Your task to perform on an android device: turn on notifications settings in the gmail app Image 0: 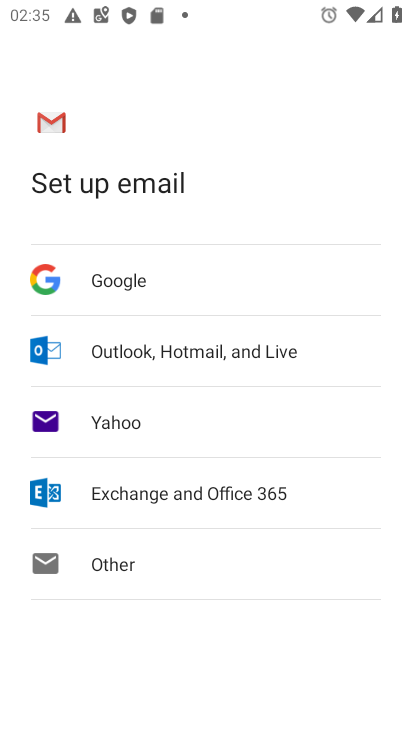
Step 0: press home button
Your task to perform on an android device: turn on notifications settings in the gmail app Image 1: 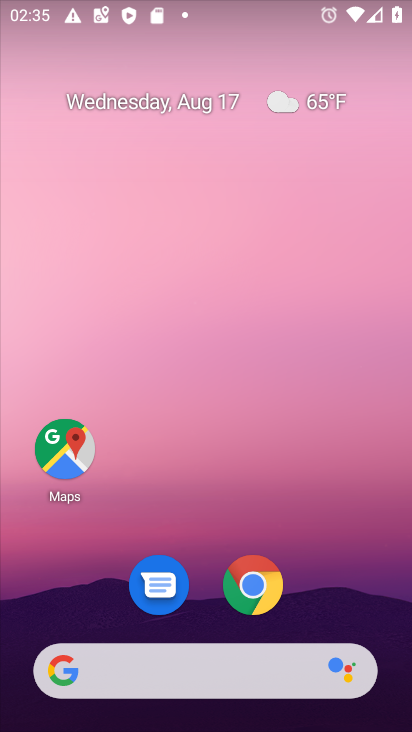
Step 1: drag from (222, 489) to (290, 1)
Your task to perform on an android device: turn on notifications settings in the gmail app Image 2: 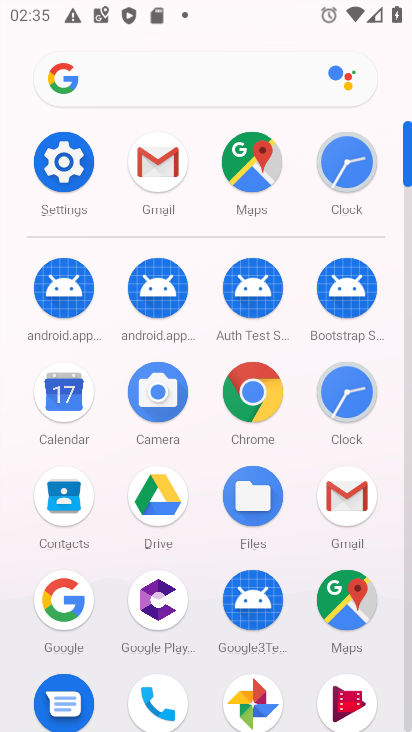
Step 2: click (150, 169)
Your task to perform on an android device: turn on notifications settings in the gmail app Image 3: 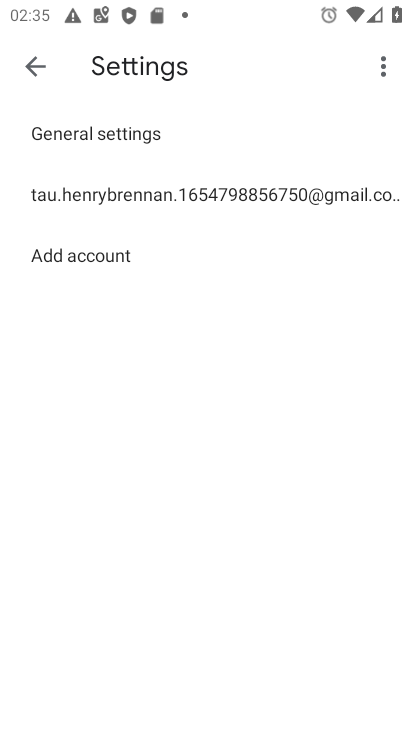
Step 3: click (166, 186)
Your task to perform on an android device: turn on notifications settings in the gmail app Image 4: 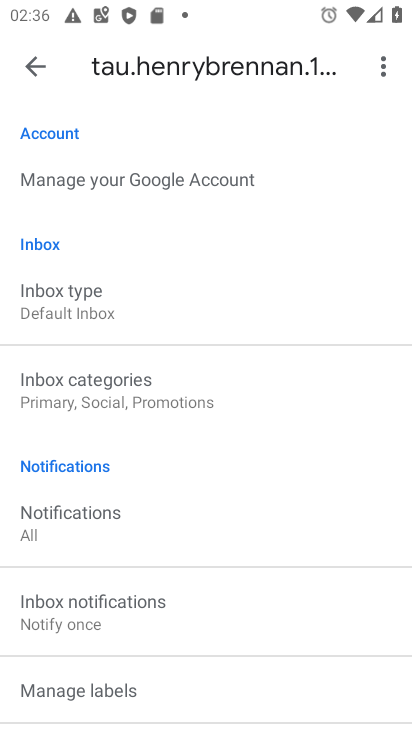
Step 4: drag from (146, 521) to (195, 57)
Your task to perform on an android device: turn on notifications settings in the gmail app Image 5: 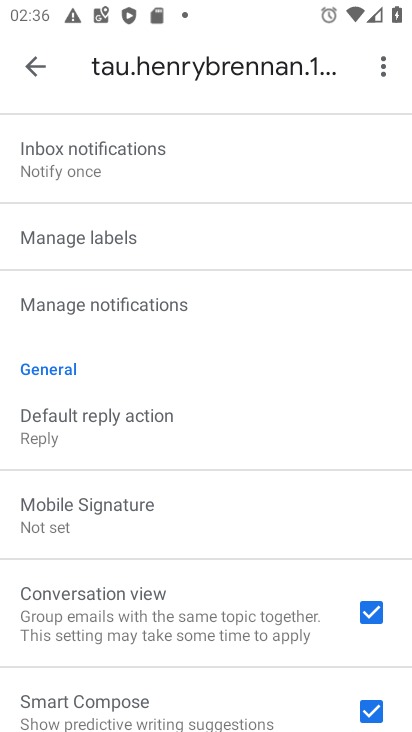
Step 5: click (206, 304)
Your task to perform on an android device: turn on notifications settings in the gmail app Image 6: 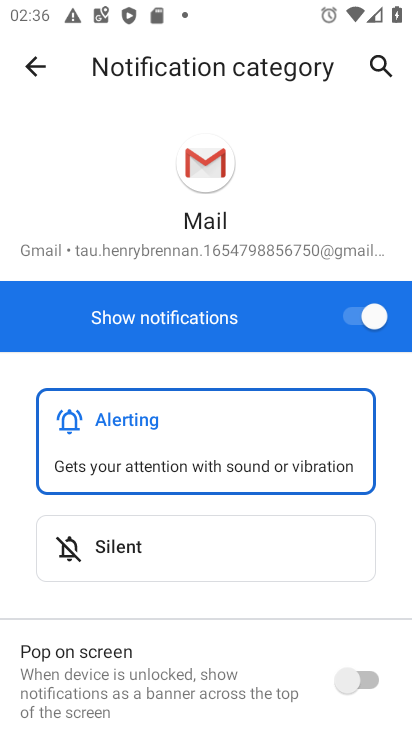
Step 6: task complete